Your task to perform on an android device: turn notification dots off Image 0: 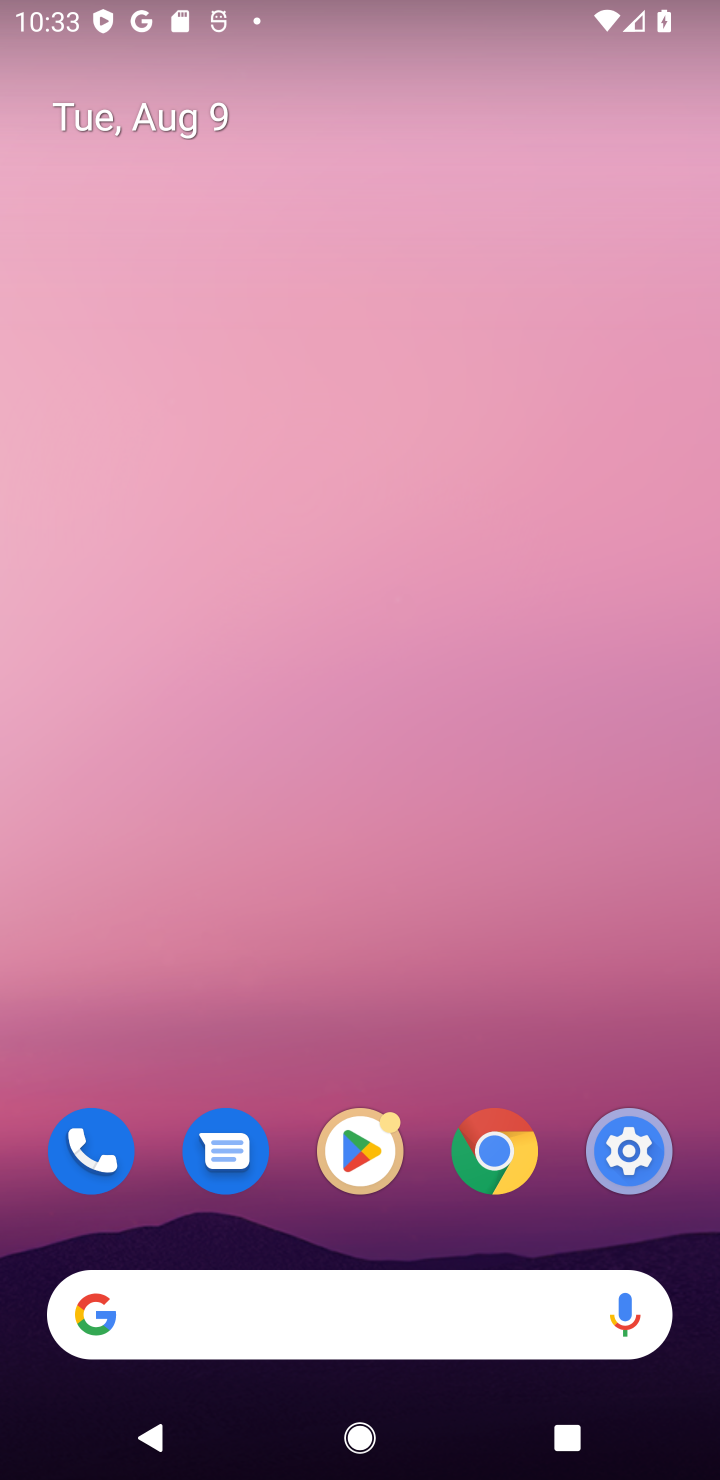
Step 0: click (628, 1158)
Your task to perform on an android device: turn notification dots off Image 1: 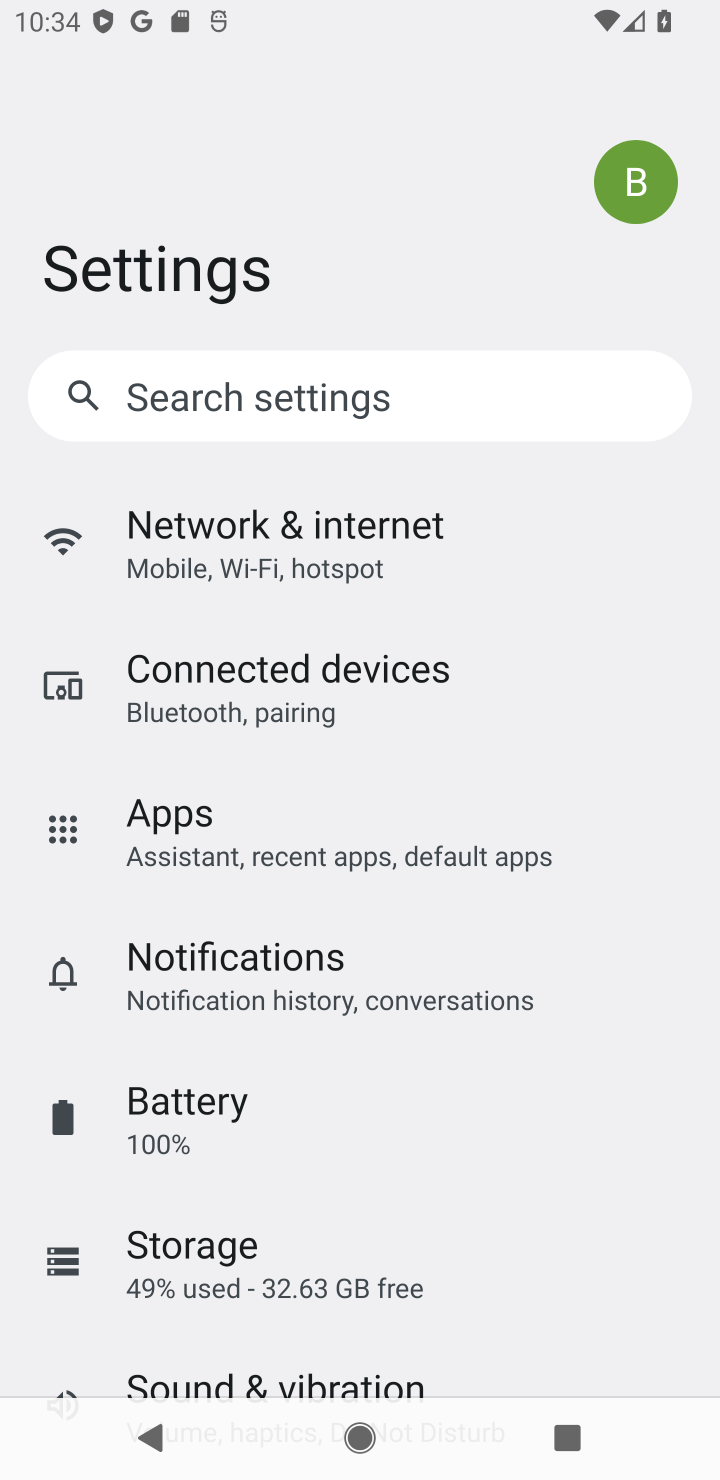
Step 1: click (359, 968)
Your task to perform on an android device: turn notification dots off Image 2: 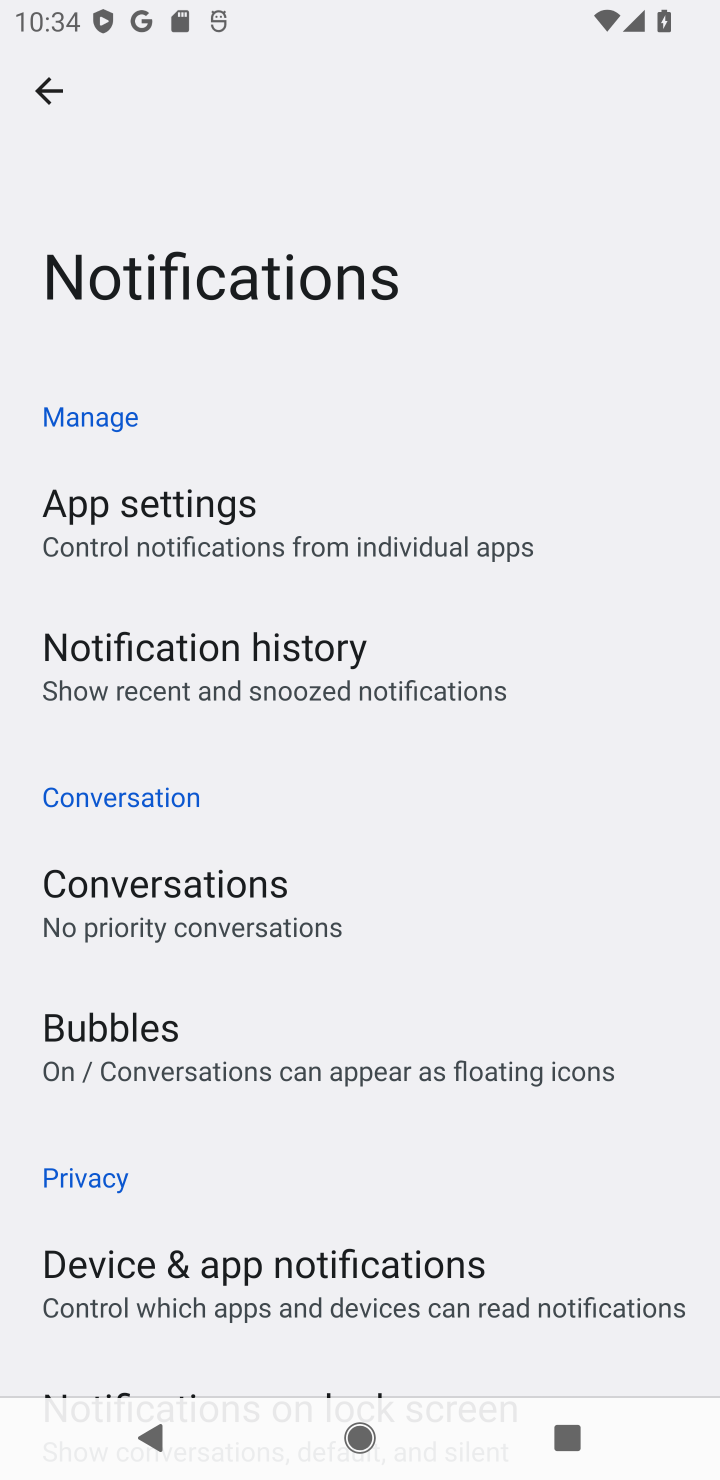
Step 2: drag from (451, 1269) to (323, 484)
Your task to perform on an android device: turn notification dots off Image 3: 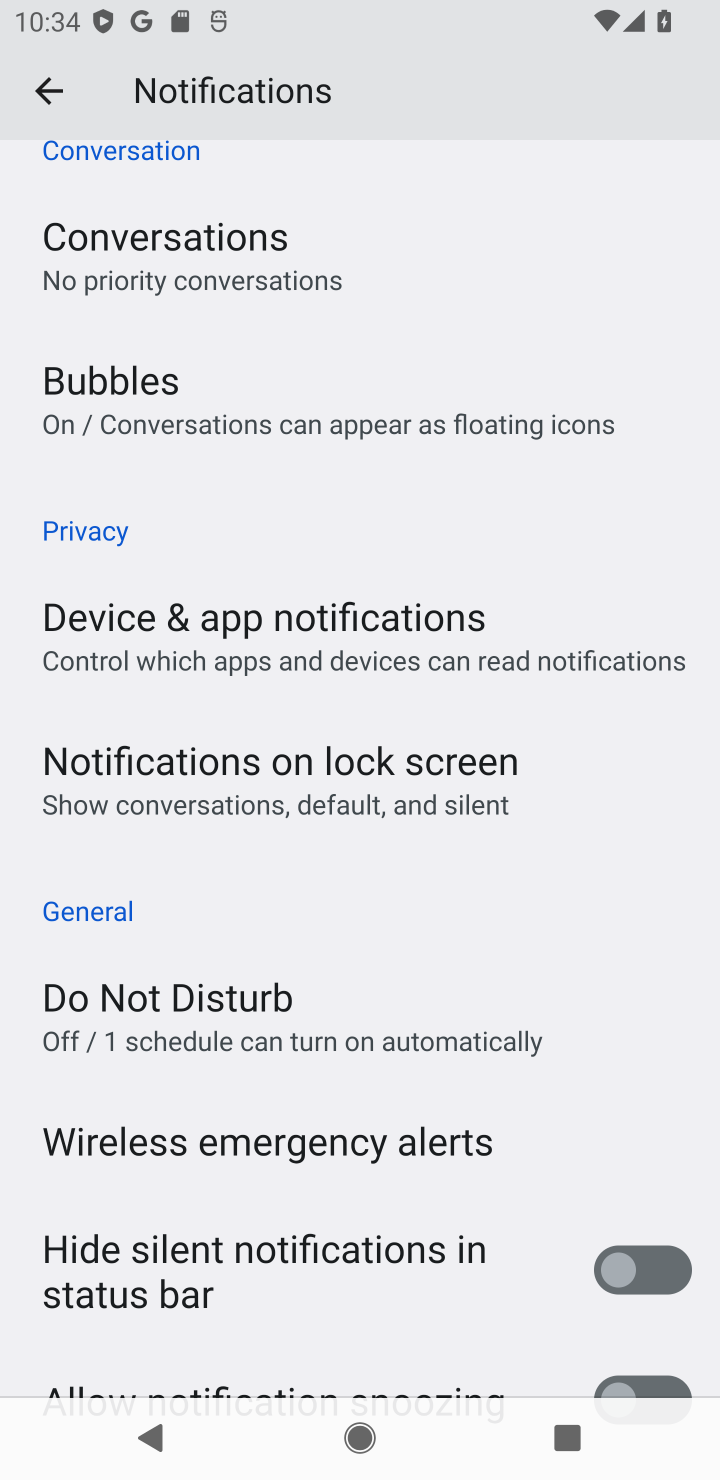
Step 3: drag from (532, 1304) to (376, 747)
Your task to perform on an android device: turn notification dots off Image 4: 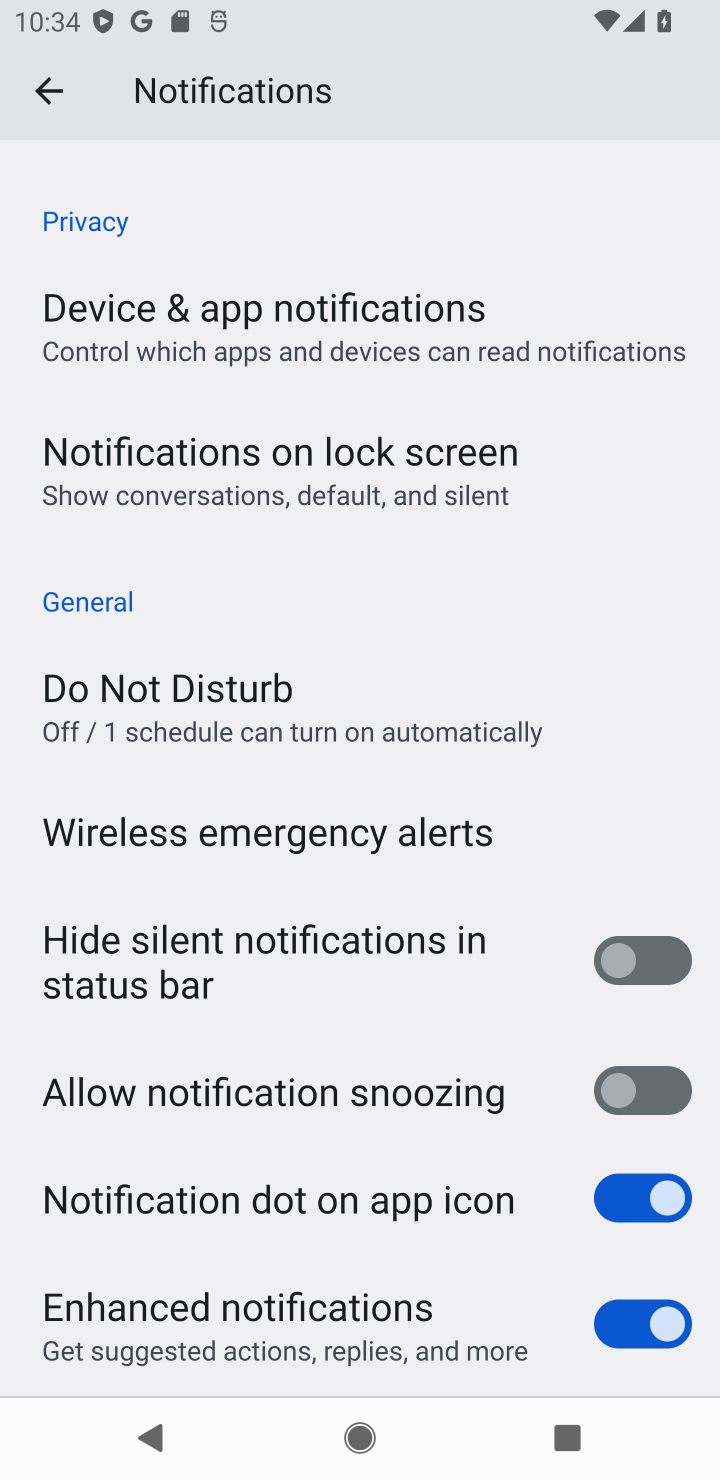
Step 4: click (619, 1208)
Your task to perform on an android device: turn notification dots off Image 5: 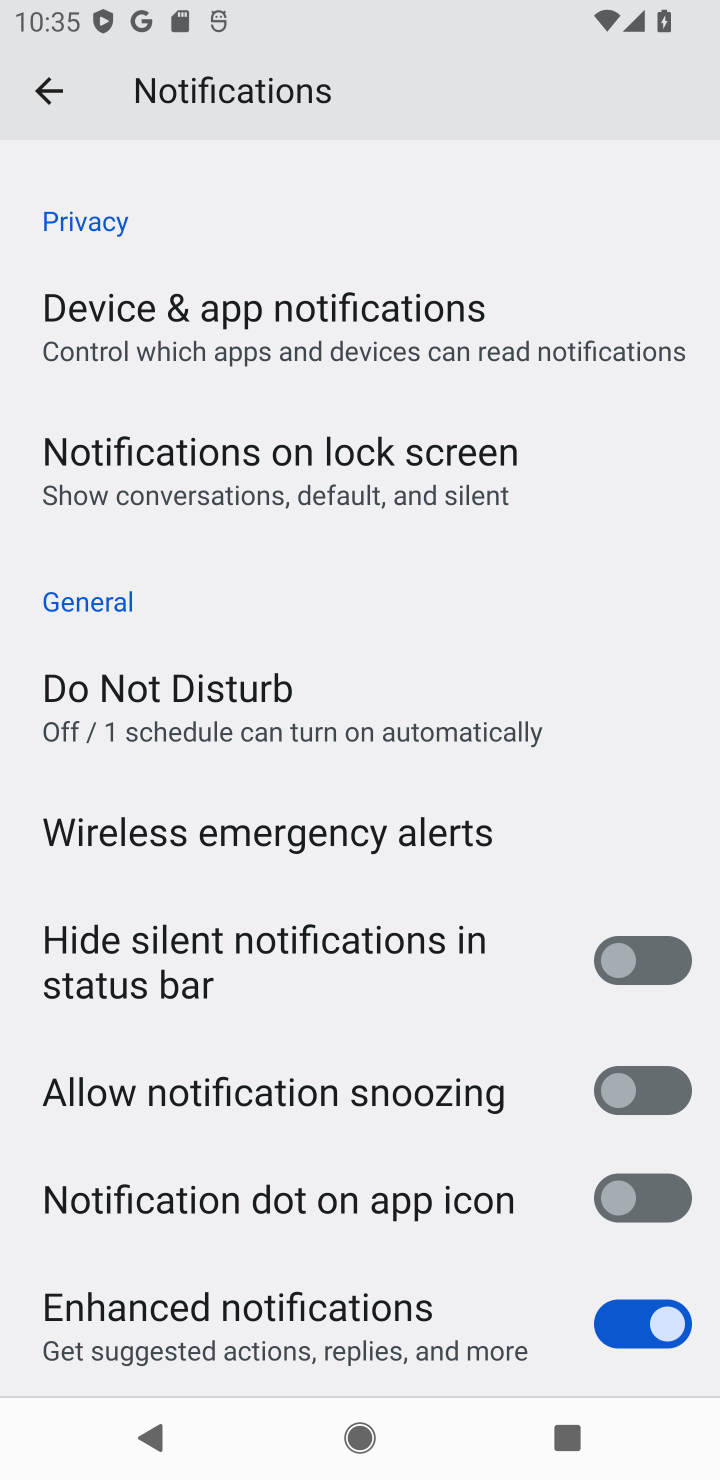
Step 5: task complete